Your task to perform on an android device: toggle javascript in the chrome app Image 0: 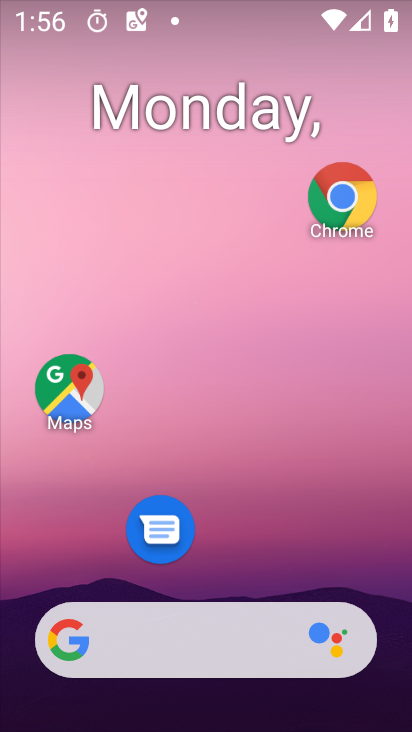
Step 0: click (337, 213)
Your task to perform on an android device: toggle javascript in the chrome app Image 1: 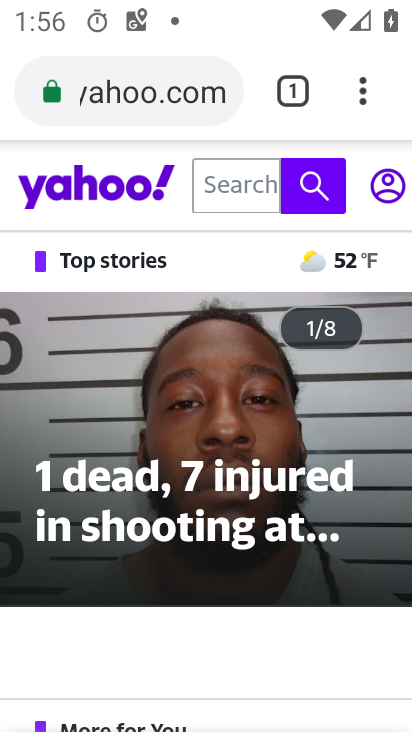
Step 1: drag from (359, 87) to (88, 559)
Your task to perform on an android device: toggle javascript in the chrome app Image 2: 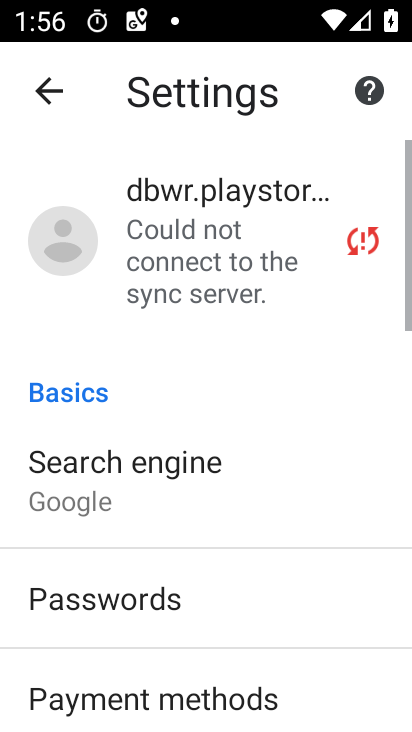
Step 2: drag from (96, 580) to (41, 74)
Your task to perform on an android device: toggle javascript in the chrome app Image 3: 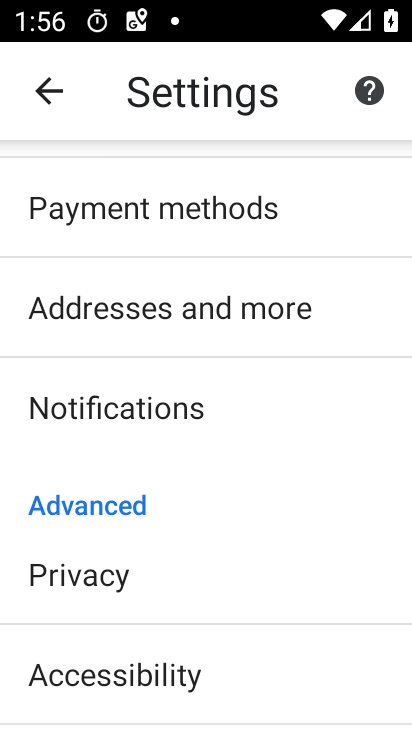
Step 3: drag from (129, 614) to (108, 215)
Your task to perform on an android device: toggle javascript in the chrome app Image 4: 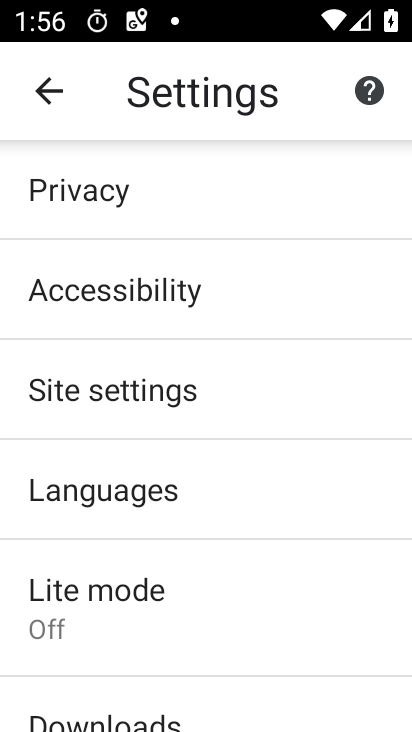
Step 4: drag from (125, 700) to (117, 220)
Your task to perform on an android device: toggle javascript in the chrome app Image 5: 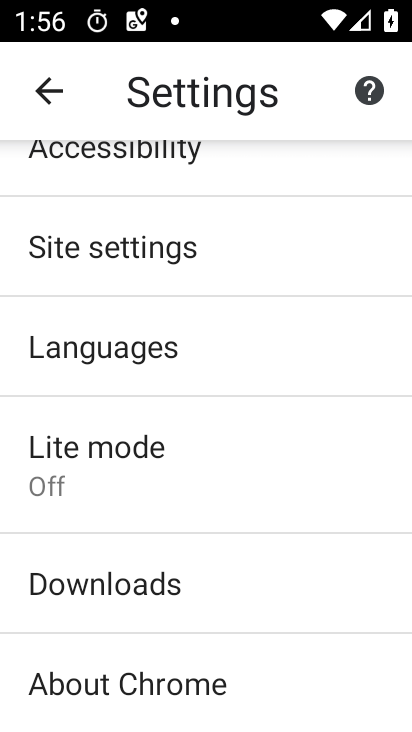
Step 5: click (99, 257)
Your task to perform on an android device: toggle javascript in the chrome app Image 6: 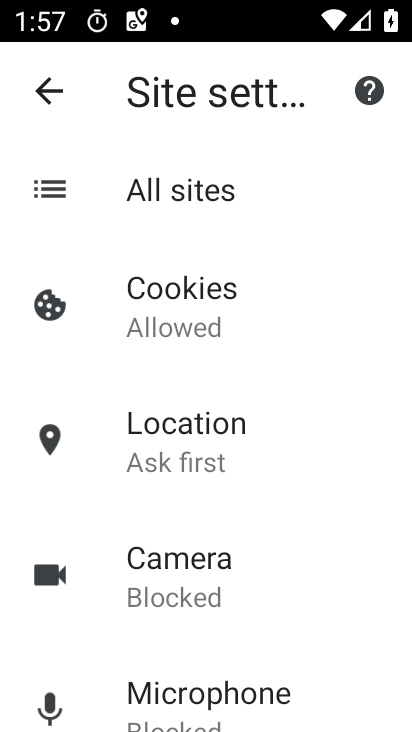
Step 6: drag from (192, 585) to (179, 204)
Your task to perform on an android device: toggle javascript in the chrome app Image 7: 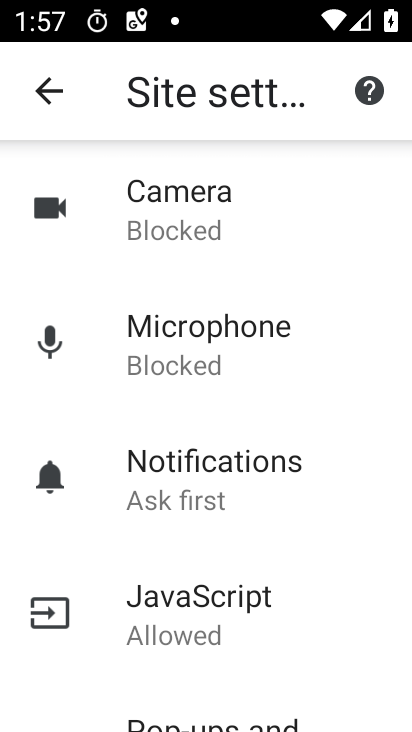
Step 7: click (178, 610)
Your task to perform on an android device: toggle javascript in the chrome app Image 8: 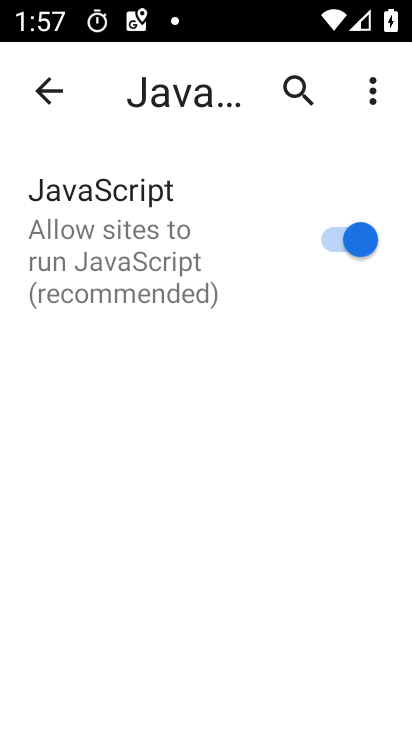
Step 8: click (344, 255)
Your task to perform on an android device: toggle javascript in the chrome app Image 9: 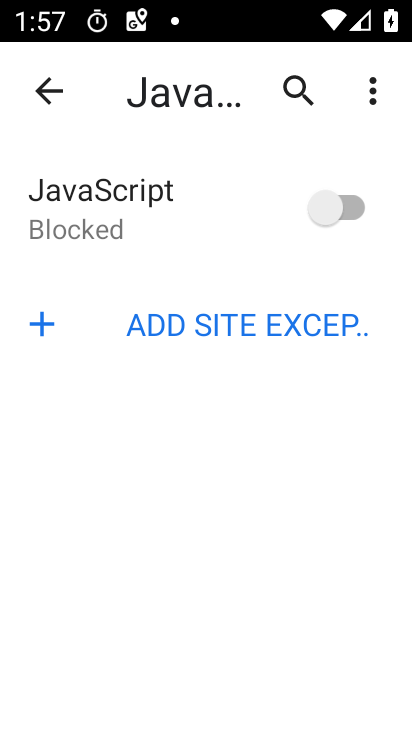
Step 9: task complete